Your task to perform on an android device: turn off location history Image 0: 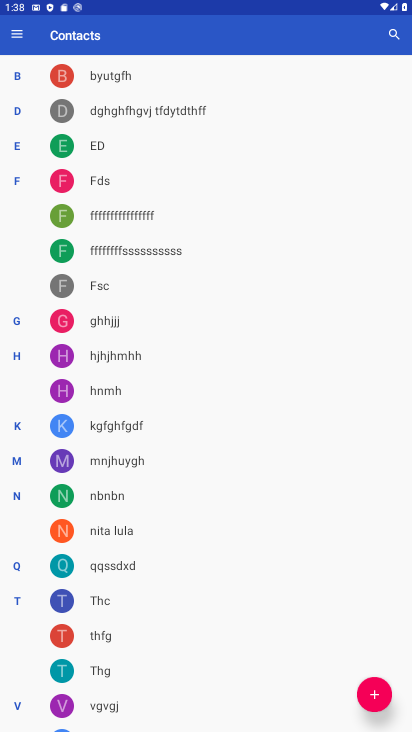
Step 0: press home button
Your task to perform on an android device: turn off location history Image 1: 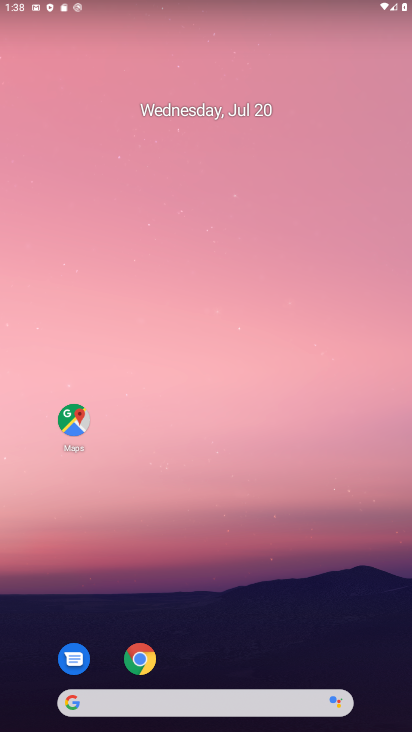
Step 1: click (349, 515)
Your task to perform on an android device: turn off location history Image 2: 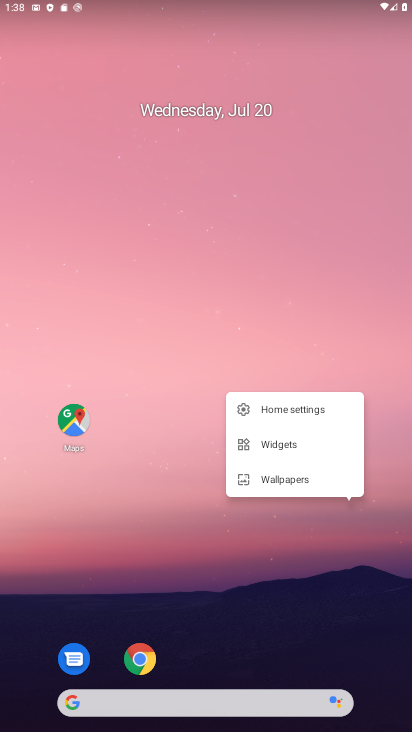
Step 2: click (353, 557)
Your task to perform on an android device: turn off location history Image 3: 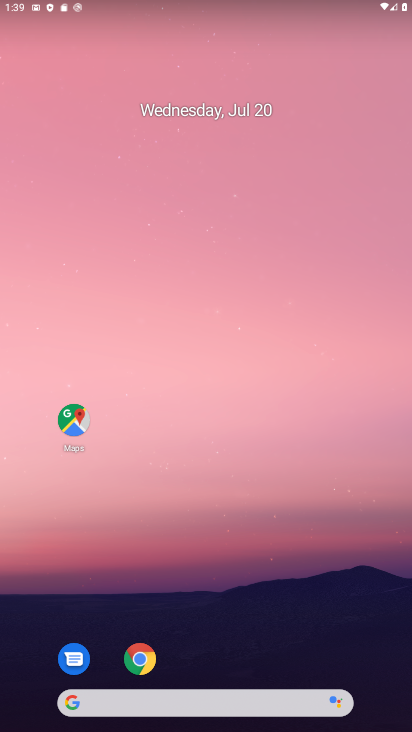
Step 3: drag from (324, 589) to (225, 209)
Your task to perform on an android device: turn off location history Image 4: 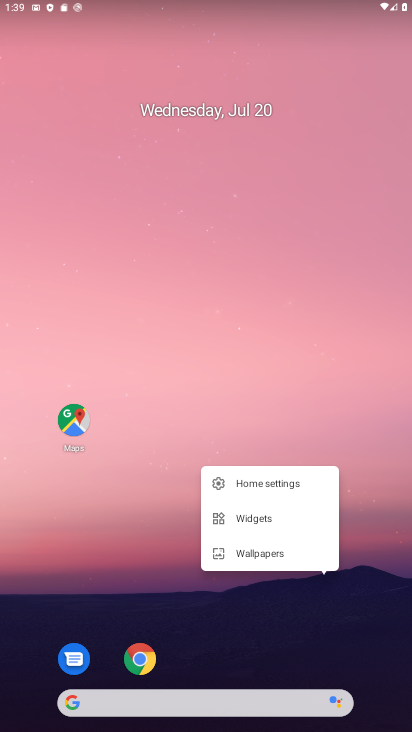
Step 4: click (384, 459)
Your task to perform on an android device: turn off location history Image 5: 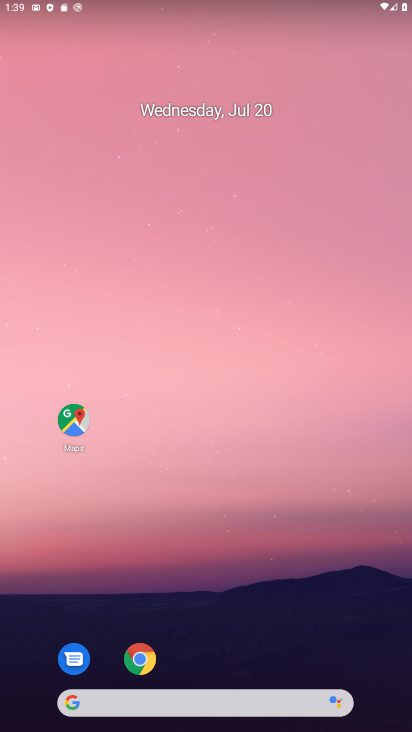
Step 5: drag from (265, 602) to (244, 163)
Your task to perform on an android device: turn off location history Image 6: 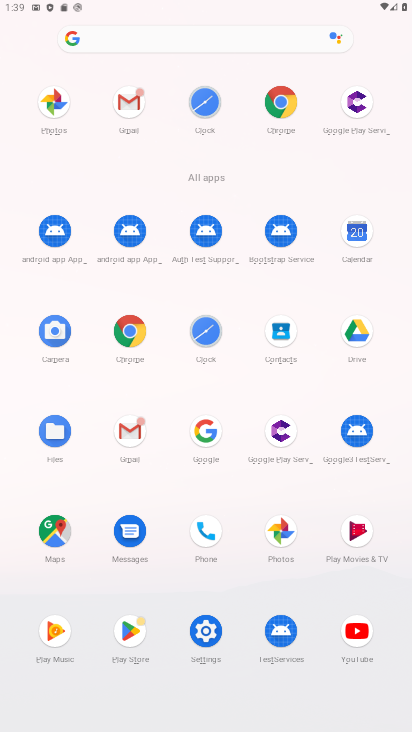
Step 6: click (202, 624)
Your task to perform on an android device: turn off location history Image 7: 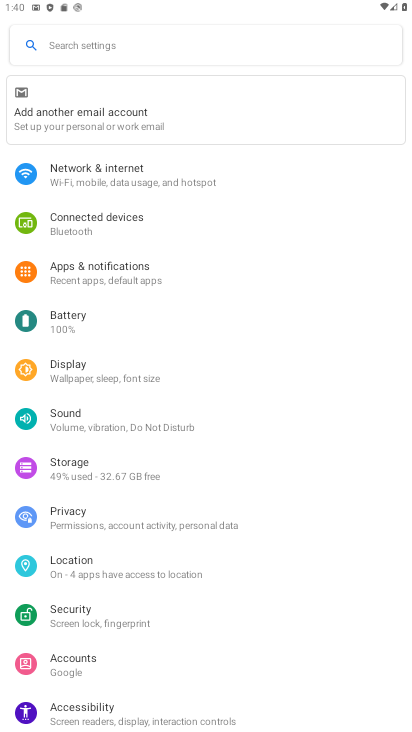
Step 7: click (104, 571)
Your task to perform on an android device: turn off location history Image 8: 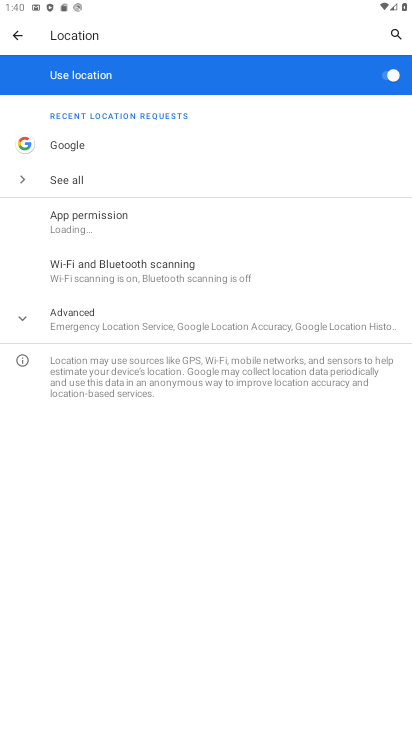
Step 8: click (78, 332)
Your task to perform on an android device: turn off location history Image 9: 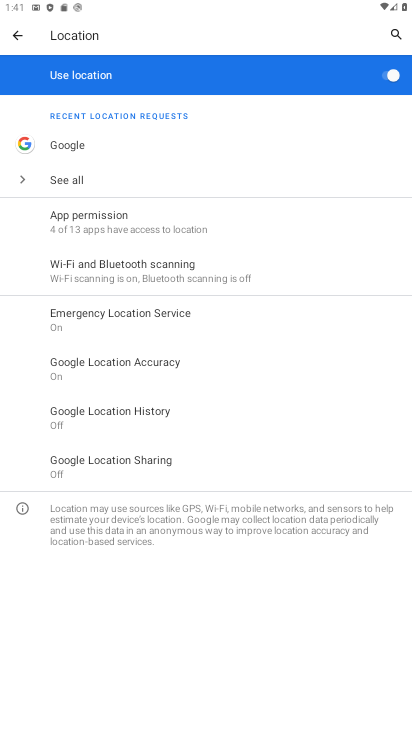
Step 9: click (100, 416)
Your task to perform on an android device: turn off location history Image 10: 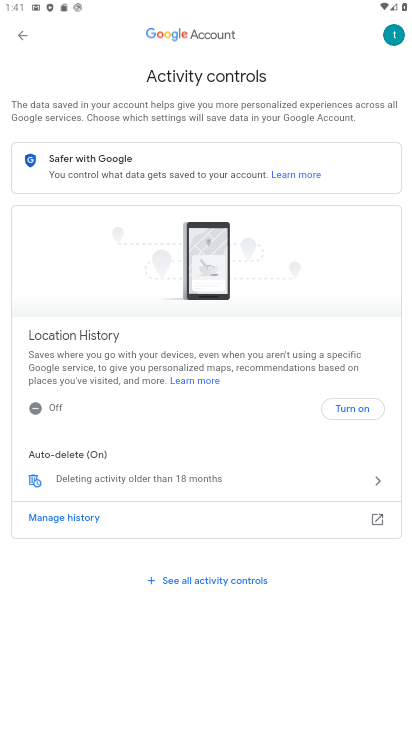
Step 10: task complete